Your task to perform on an android device: Do I have any events tomorrow? Image 0: 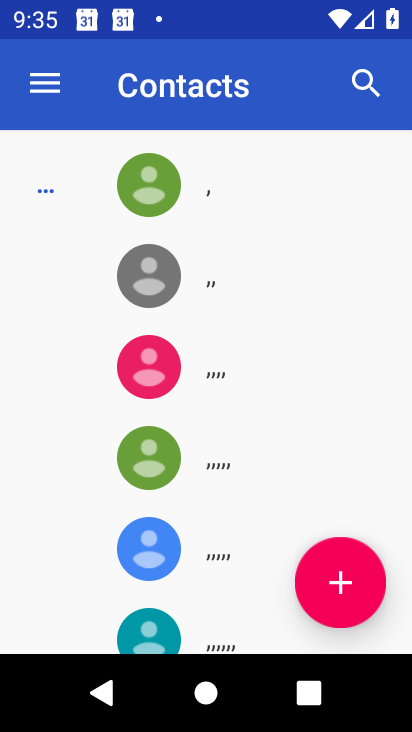
Step 0: press home button
Your task to perform on an android device: Do I have any events tomorrow? Image 1: 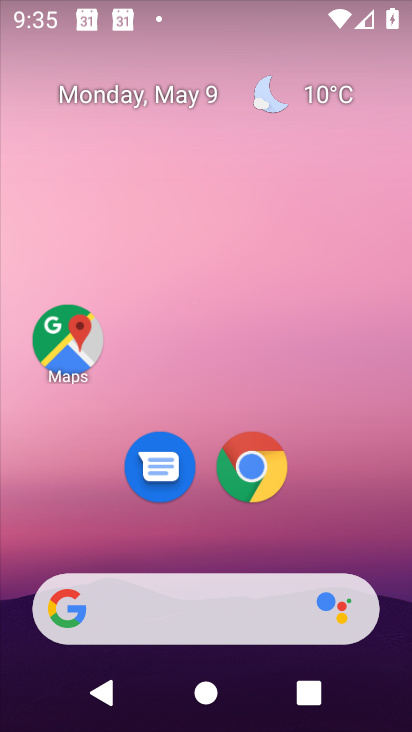
Step 1: drag from (351, 547) to (362, 18)
Your task to perform on an android device: Do I have any events tomorrow? Image 2: 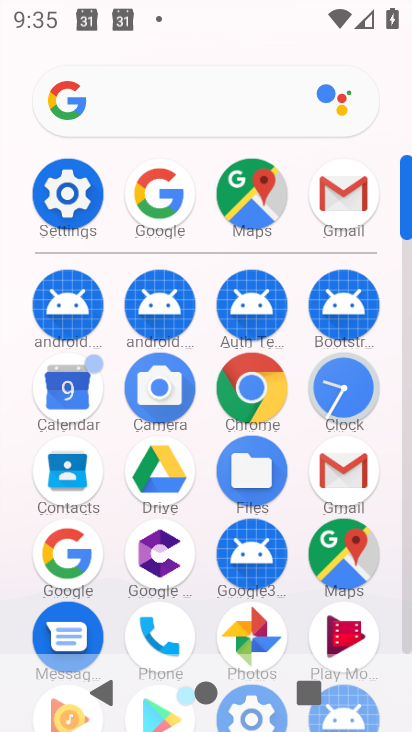
Step 2: click (75, 383)
Your task to perform on an android device: Do I have any events tomorrow? Image 3: 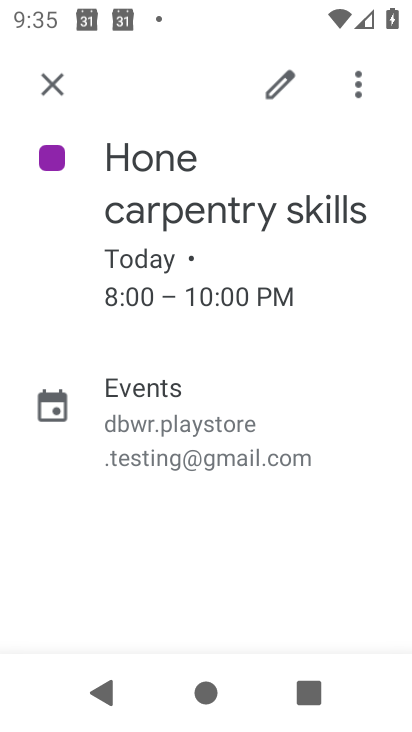
Step 3: click (58, 81)
Your task to perform on an android device: Do I have any events tomorrow? Image 4: 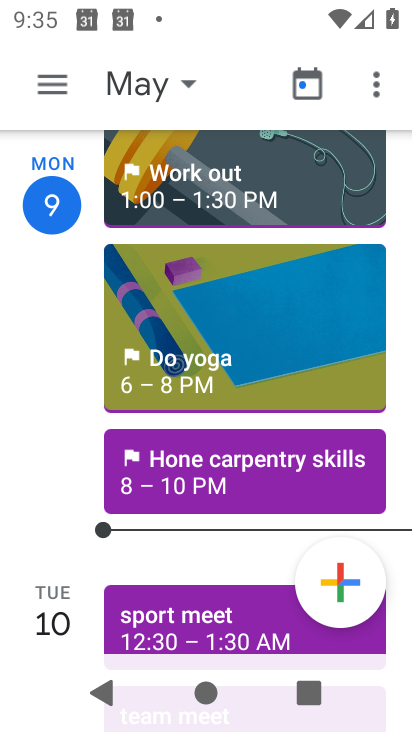
Step 4: click (172, 598)
Your task to perform on an android device: Do I have any events tomorrow? Image 5: 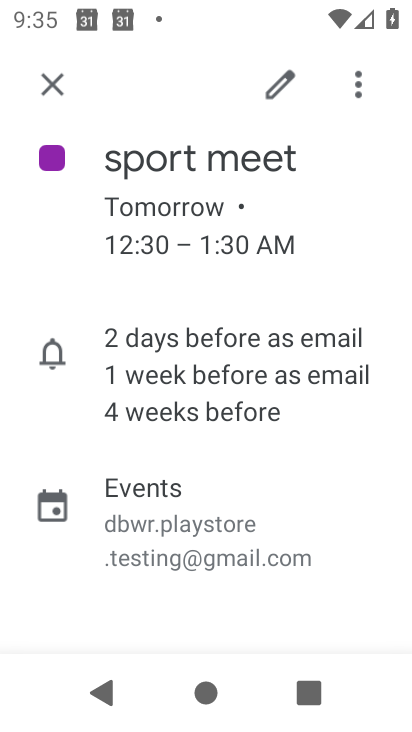
Step 5: task complete